Your task to perform on an android device: see sites visited before in the chrome app Image 0: 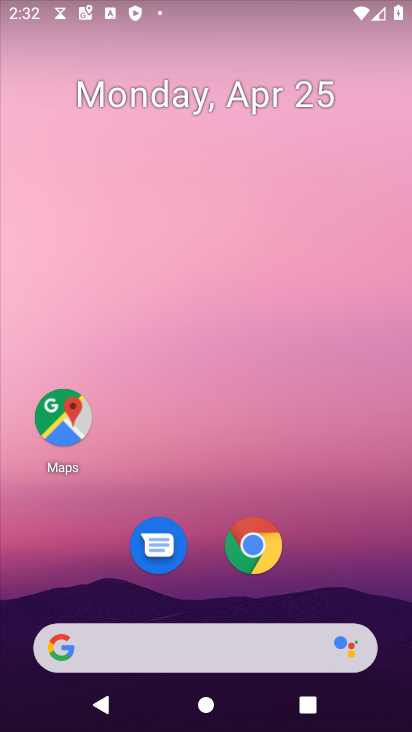
Step 0: click (252, 526)
Your task to perform on an android device: see sites visited before in the chrome app Image 1: 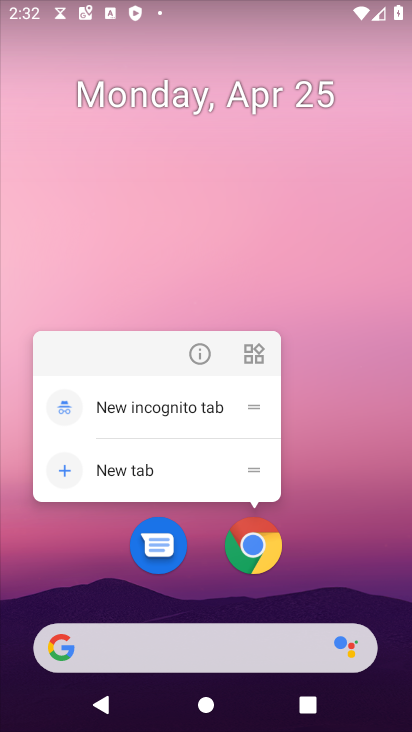
Step 1: click (252, 538)
Your task to perform on an android device: see sites visited before in the chrome app Image 2: 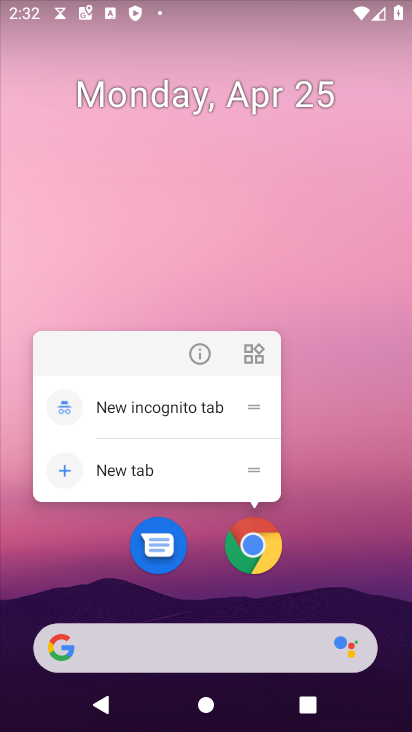
Step 2: click (252, 538)
Your task to perform on an android device: see sites visited before in the chrome app Image 3: 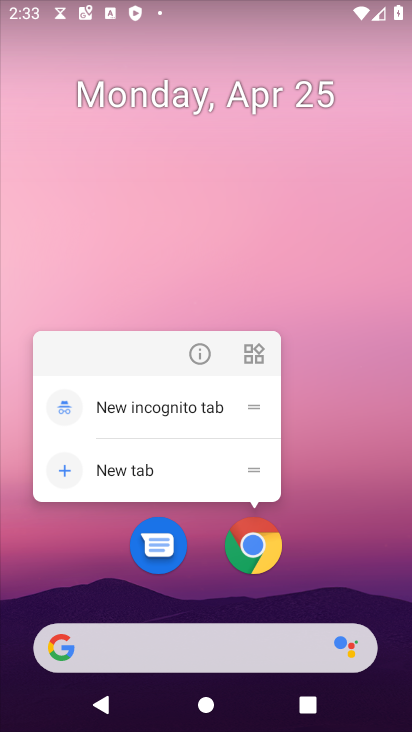
Step 3: click (252, 538)
Your task to perform on an android device: see sites visited before in the chrome app Image 4: 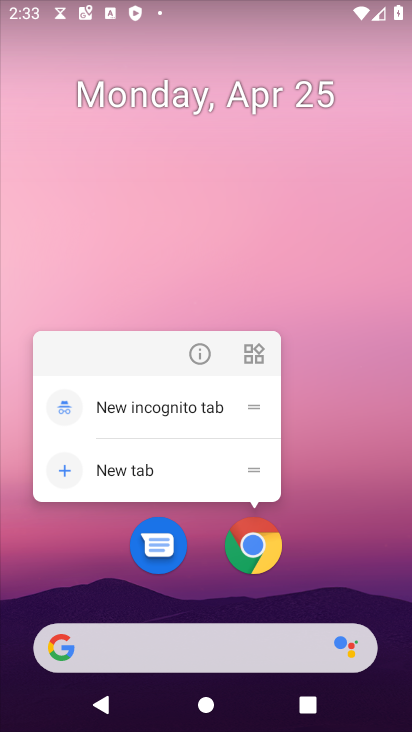
Step 4: click (252, 538)
Your task to perform on an android device: see sites visited before in the chrome app Image 5: 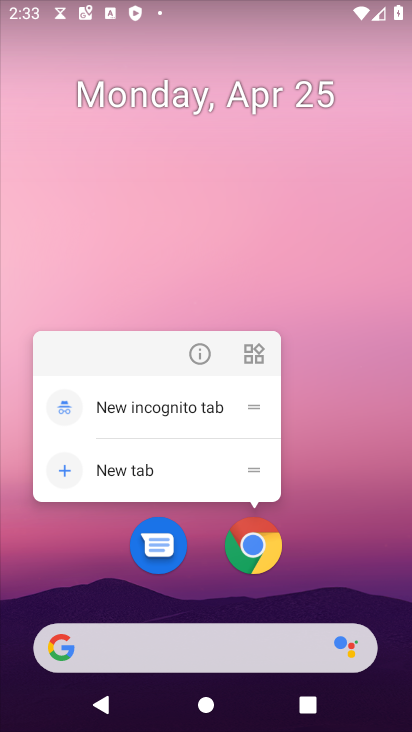
Step 5: click (252, 538)
Your task to perform on an android device: see sites visited before in the chrome app Image 6: 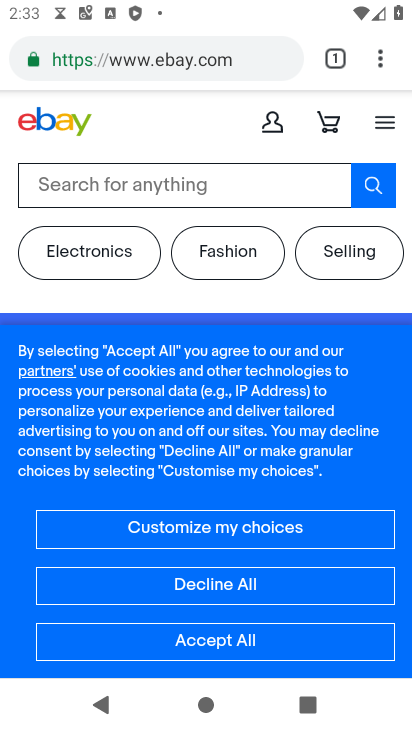
Step 6: click (386, 54)
Your task to perform on an android device: see sites visited before in the chrome app Image 7: 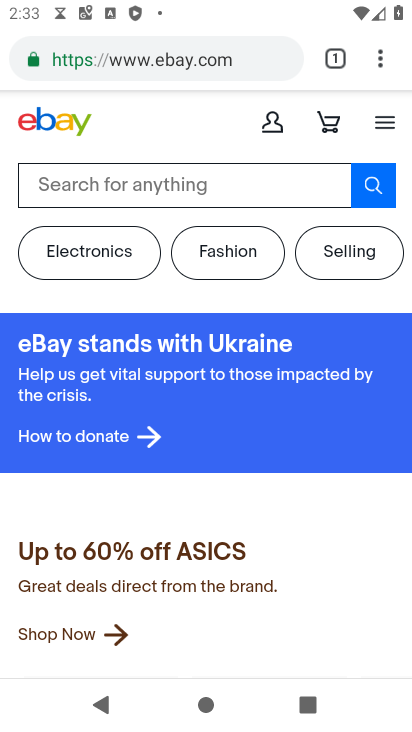
Step 7: task complete